Your task to perform on an android device: change the clock display to digital Image 0: 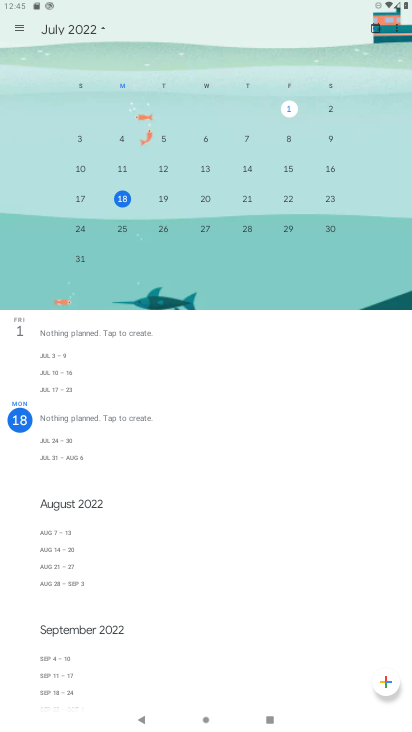
Step 0: press home button
Your task to perform on an android device: change the clock display to digital Image 1: 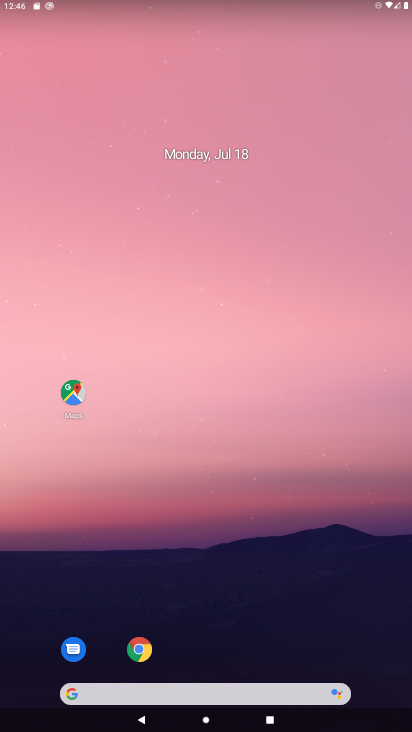
Step 1: drag from (24, 704) to (342, 81)
Your task to perform on an android device: change the clock display to digital Image 2: 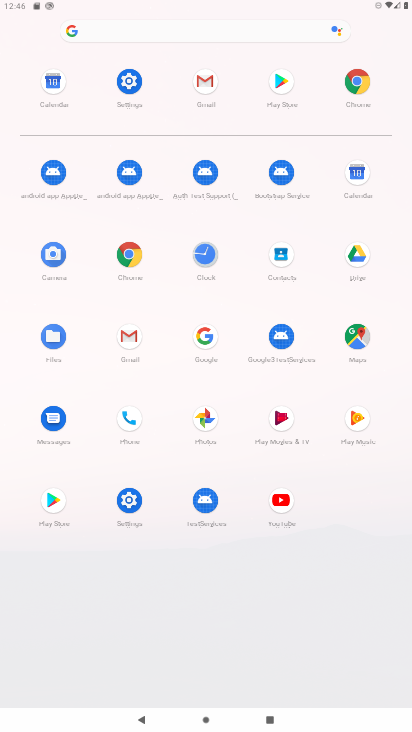
Step 2: click (121, 505)
Your task to perform on an android device: change the clock display to digital Image 3: 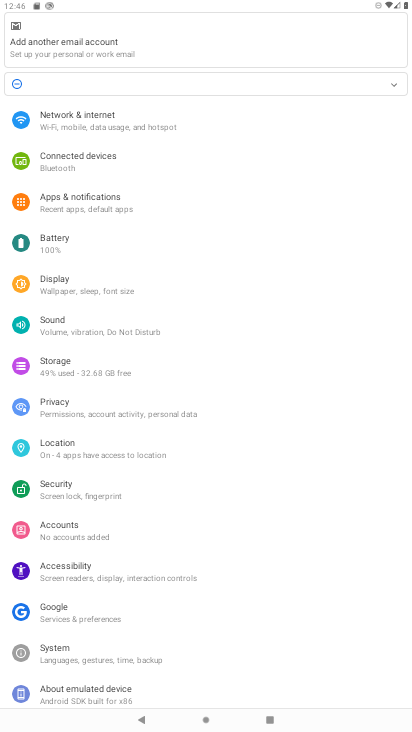
Step 3: press home button
Your task to perform on an android device: change the clock display to digital Image 4: 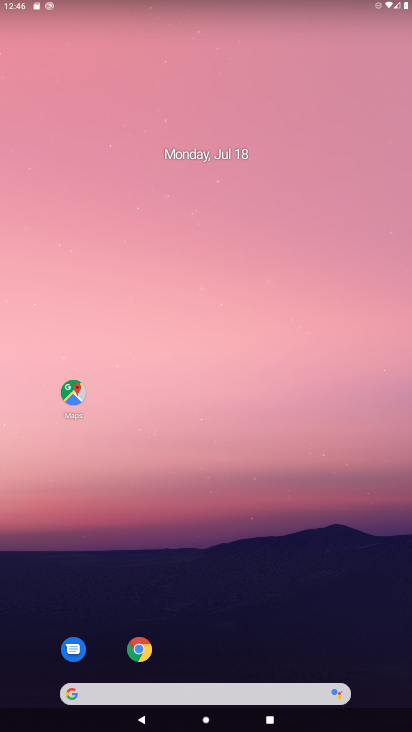
Step 4: drag from (26, 702) to (199, 306)
Your task to perform on an android device: change the clock display to digital Image 5: 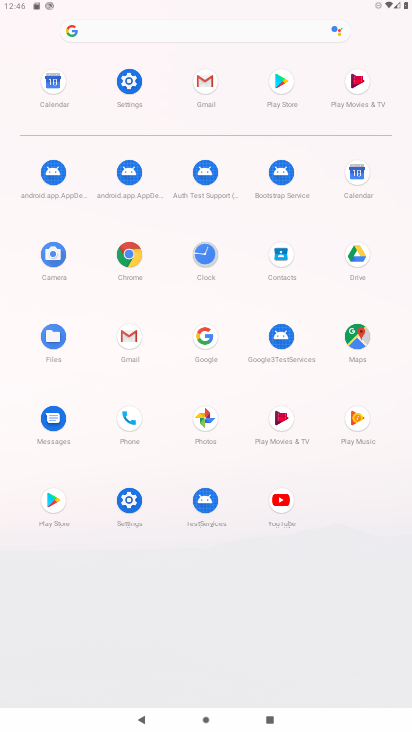
Step 5: drag from (39, 696) to (81, 599)
Your task to perform on an android device: change the clock display to digital Image 6: 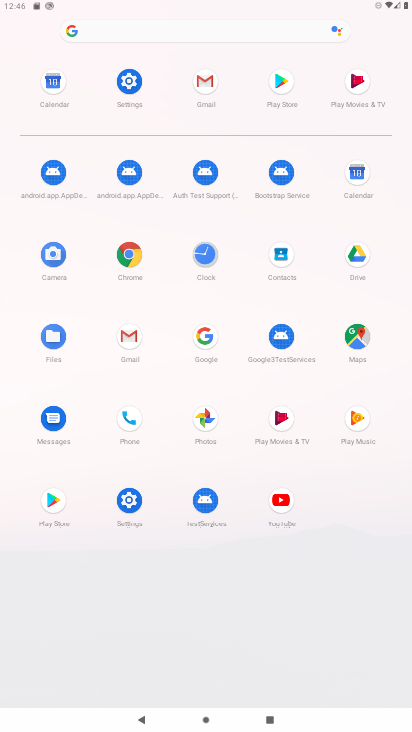
Step 6: click (203, 263)
Your task to perform on an android device: change the clock display to digital Image 7: 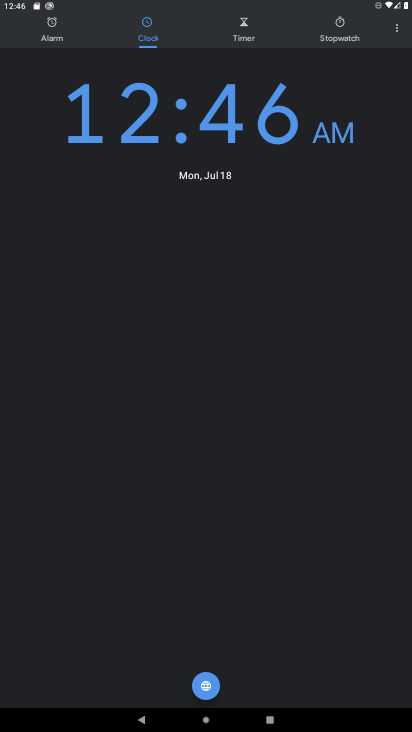
Step 7: click (393, 31)
Your task to perform on an android device: change the clock display to digital Image 8: 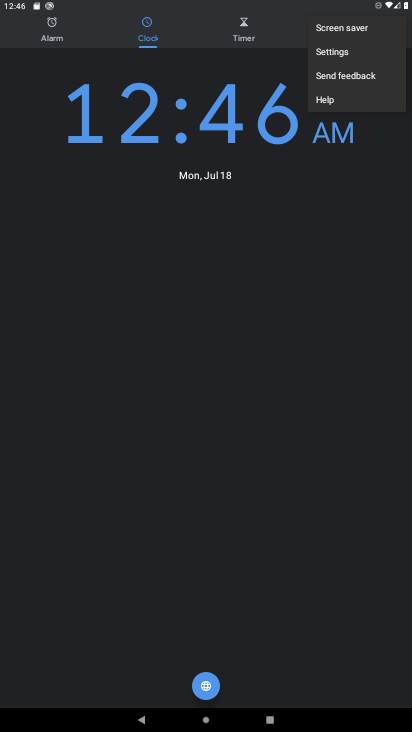
Step 8: click (332, 55)
Your task to perform on an android device: change the clock display to digital Image 9: 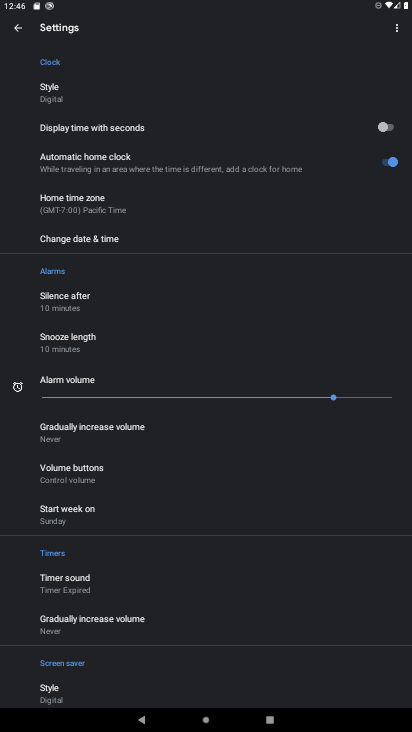
Step 9: task complete